Your task to perform on an android device: turn off sleep mode Image 0: 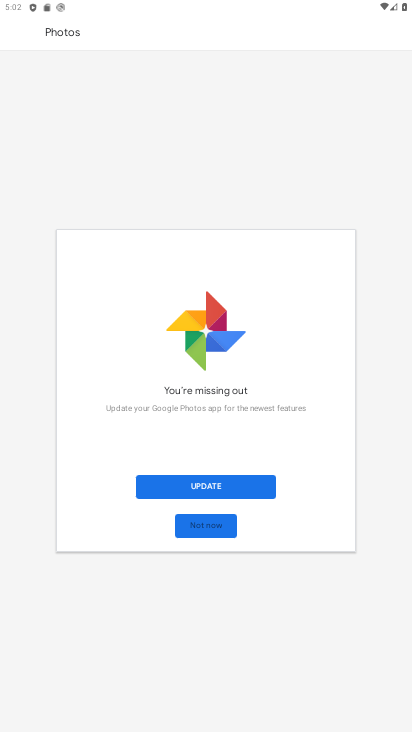
Step 0: press home button
Your task to perform on an android device: turn off sleep mode Image 1: 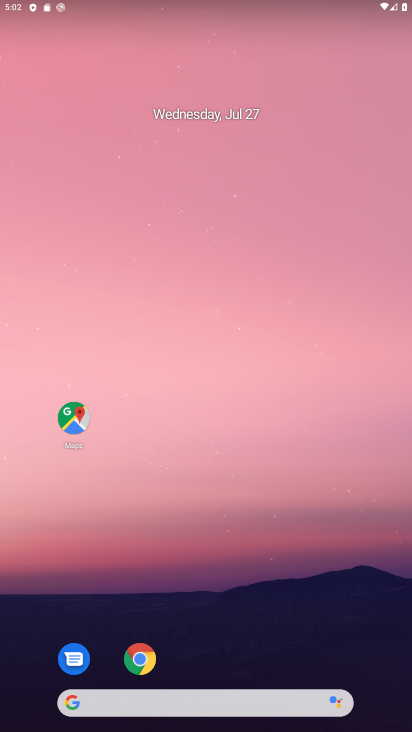
Step 1: drag from (301, 558) to (343, 76)
Your task to perform on an android device: turn off sleep mode Image 2: 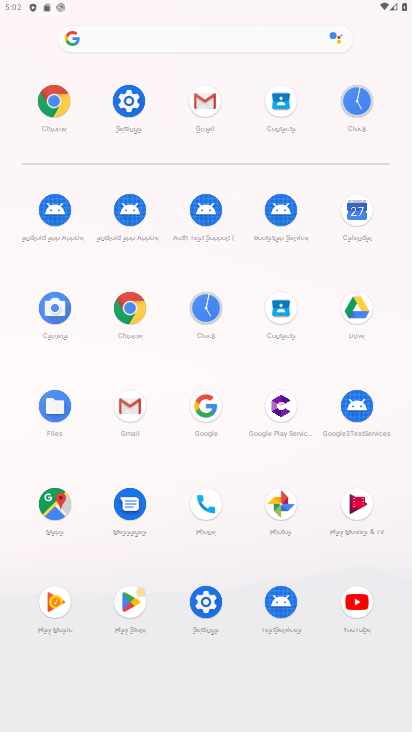
Step 2: click (197, 601)
Your task to perform on an android device: turn off sleep mode Image 3: 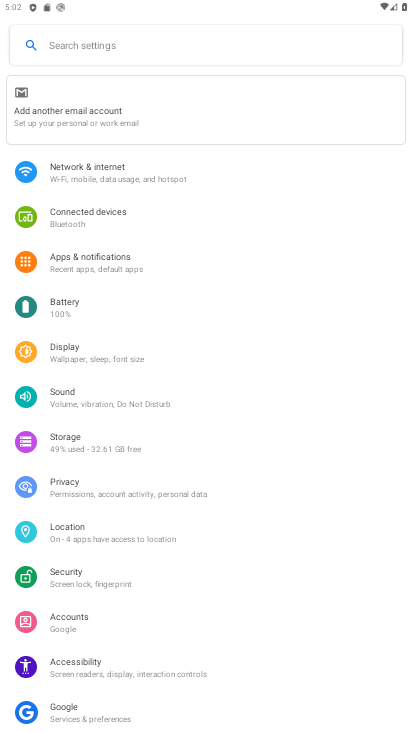
Step 3: click (82, 348)
Your task to perform on an android device: turn off sleep mode Image 4: 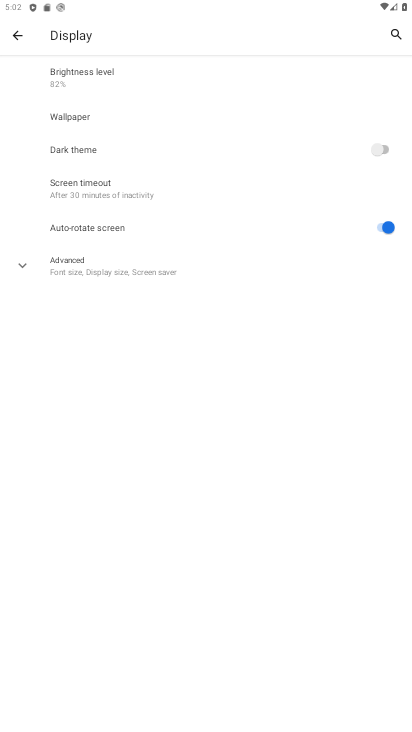
Step 4: click (84, 178)
Your task to perform on an android device: turn off sleep mode Image 5: 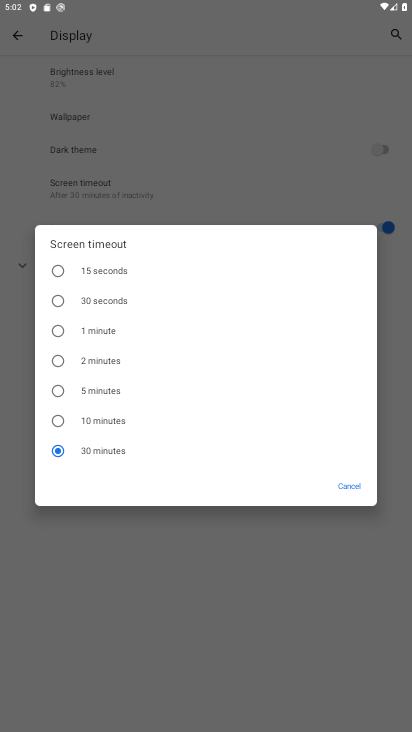
Step 5: task complete